Your task to perform on an android device: delete the emails in spam in the gmail app Image 0: 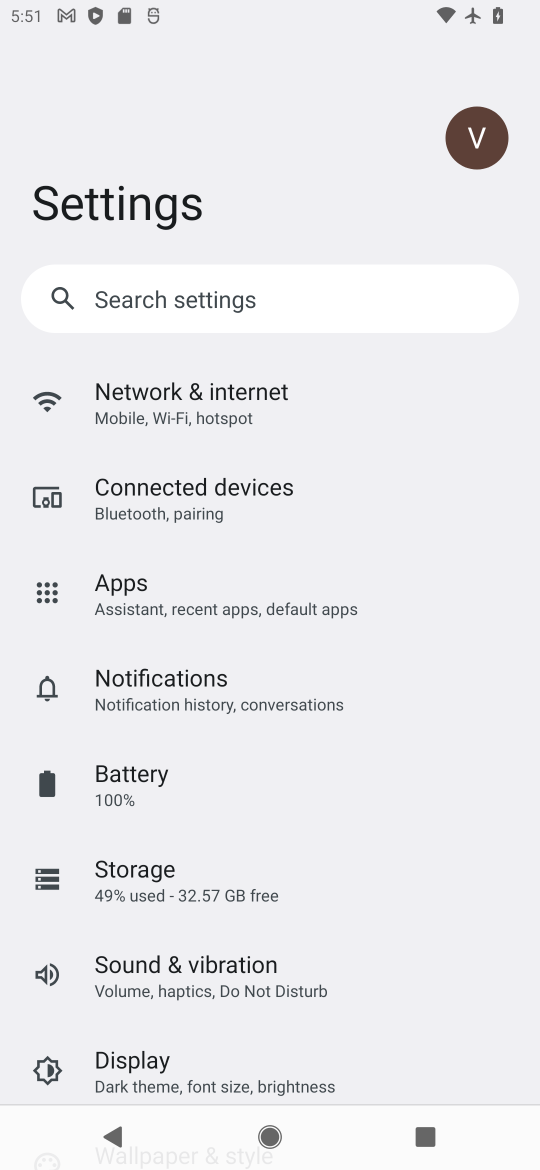
Step 0: press home button
Your task to perform on an android device: delete the emails in spam in the gmail app Image 1: 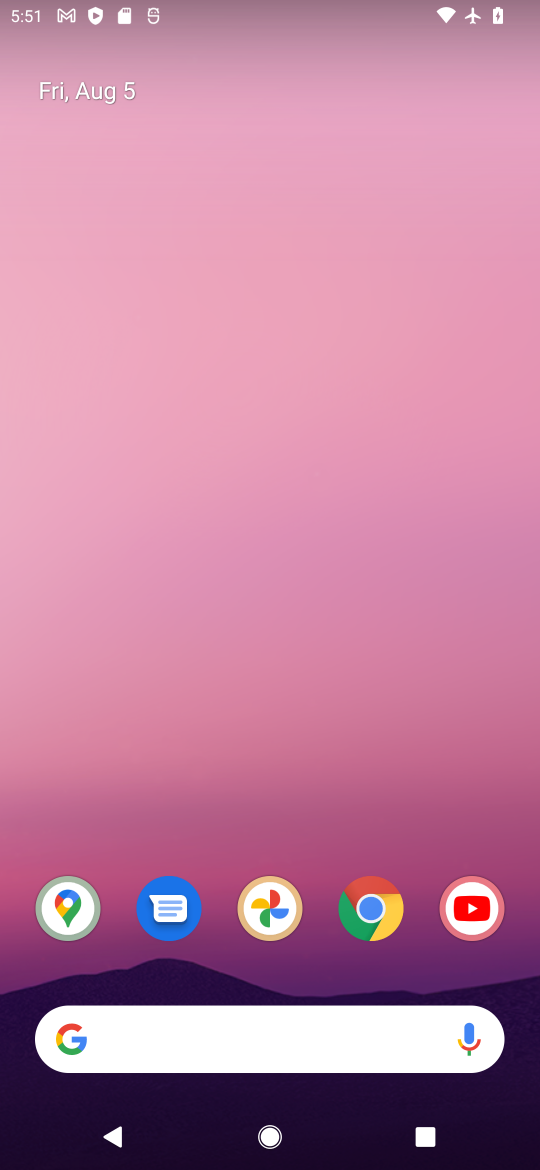
Step 1: drag from (199, 971) to (234, 293)
Your task to perform on an android device: delete the emails in spam in the gmail app Image 2: 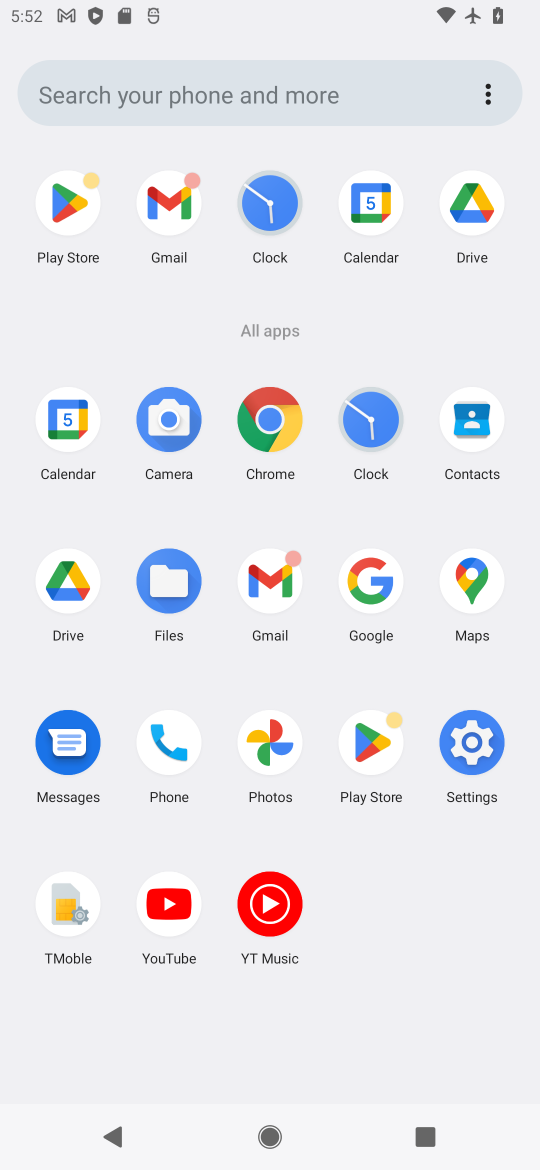
Step 2: click (169, 234)
Your task to perform on an android device: delete the emails in spam in the gmail app Image 3: 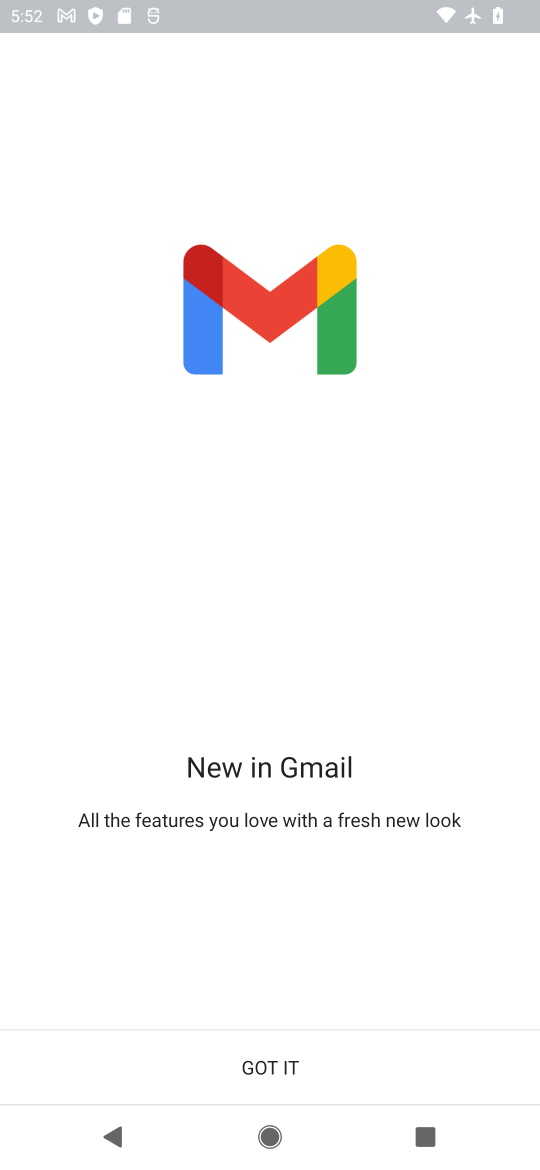
Step 3: click (255, 1060)
Your task to perform on an android device: delete the emails in spam in the gmail app Image 4: 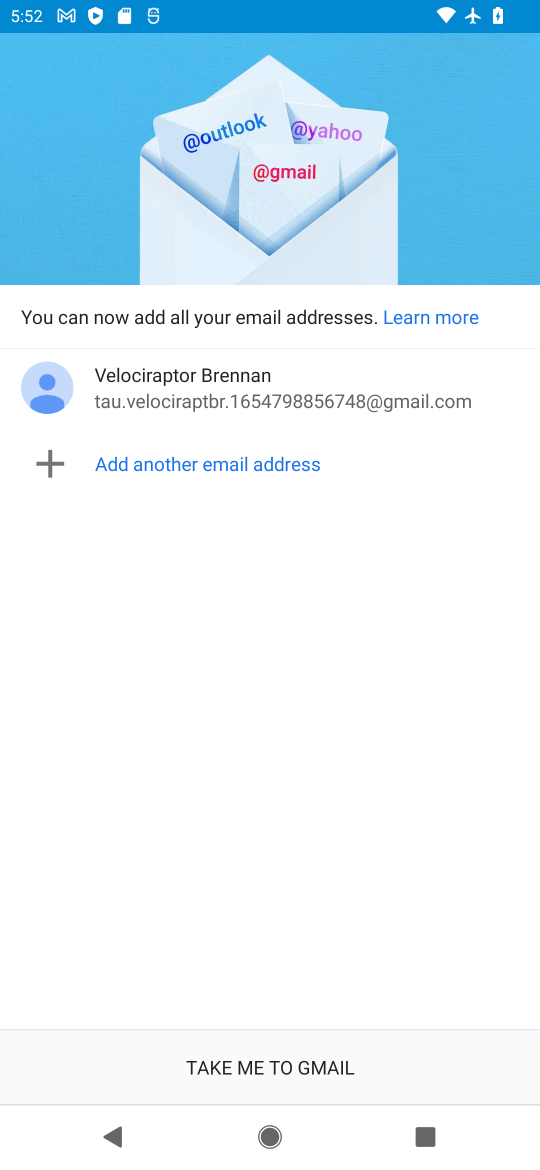
Step 4: click (255, 1060)
Your task to perform on an android device: delete the emails in spam in the gmail app Image 5: 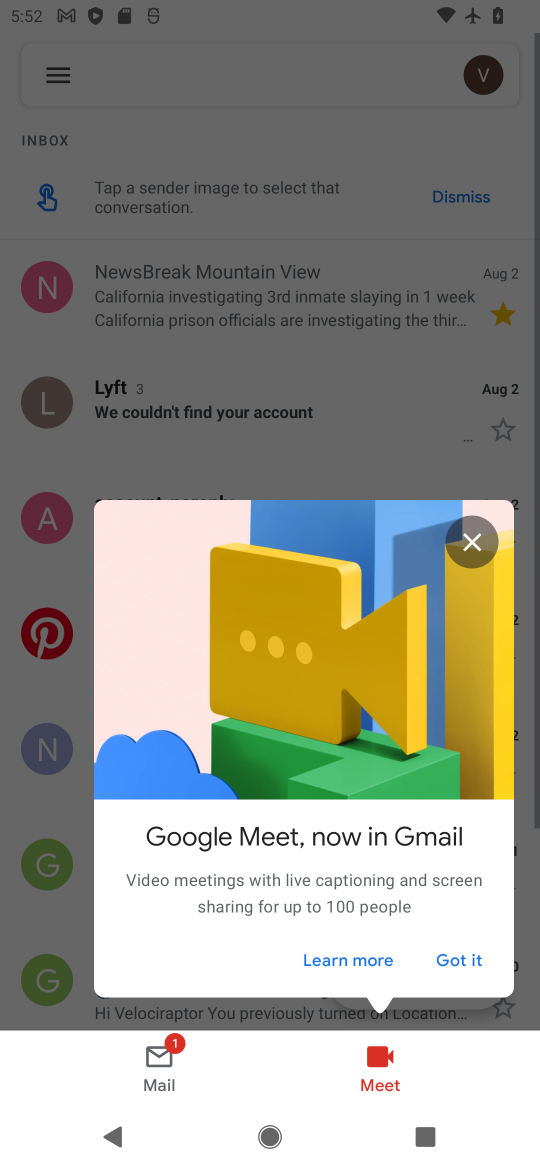
Step 5: click (468, 529)
Your task to perform on an android device: delete the emails in spam in the gmail app Image 6: 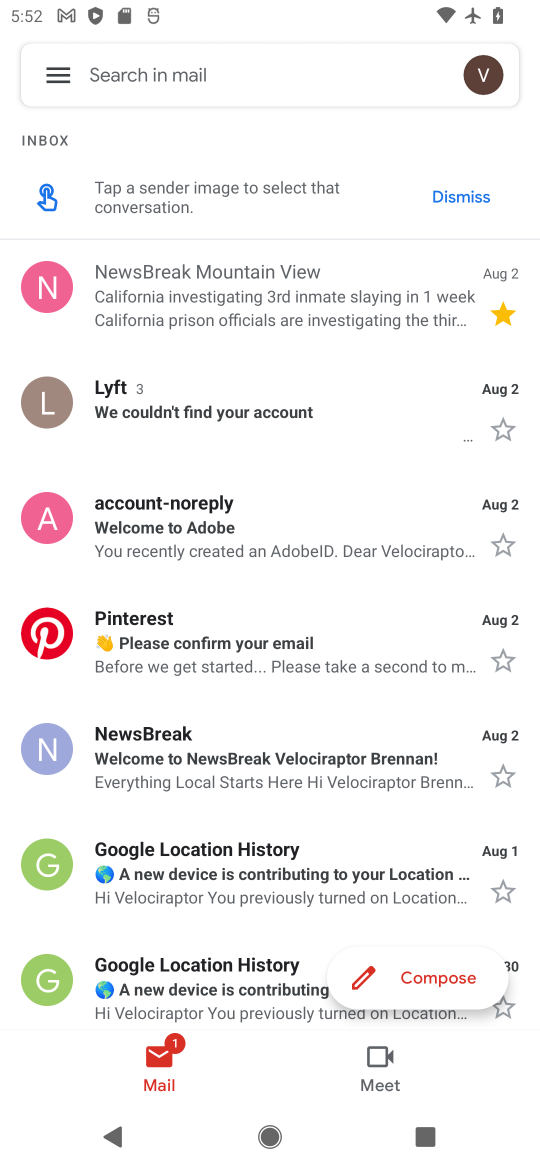
Step 6: click (54, 84)
Your task to perform on an android device: delete the emails in spam in the gmail app Image 7: 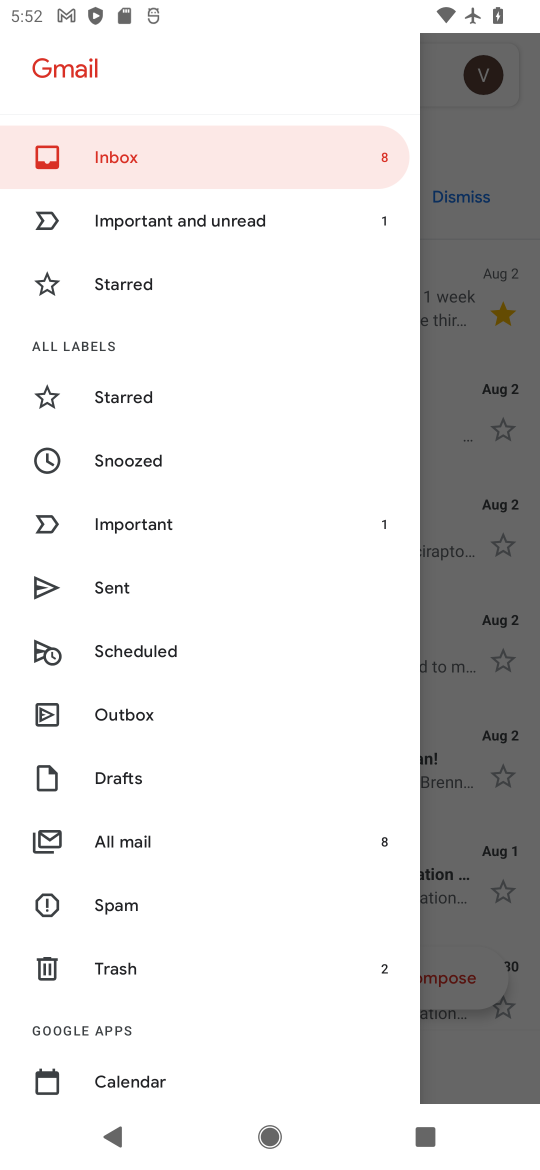
Step 7: click (130, 909)
Your task to perform on an android device: delete the emails in spam in the gmail app Image 8: 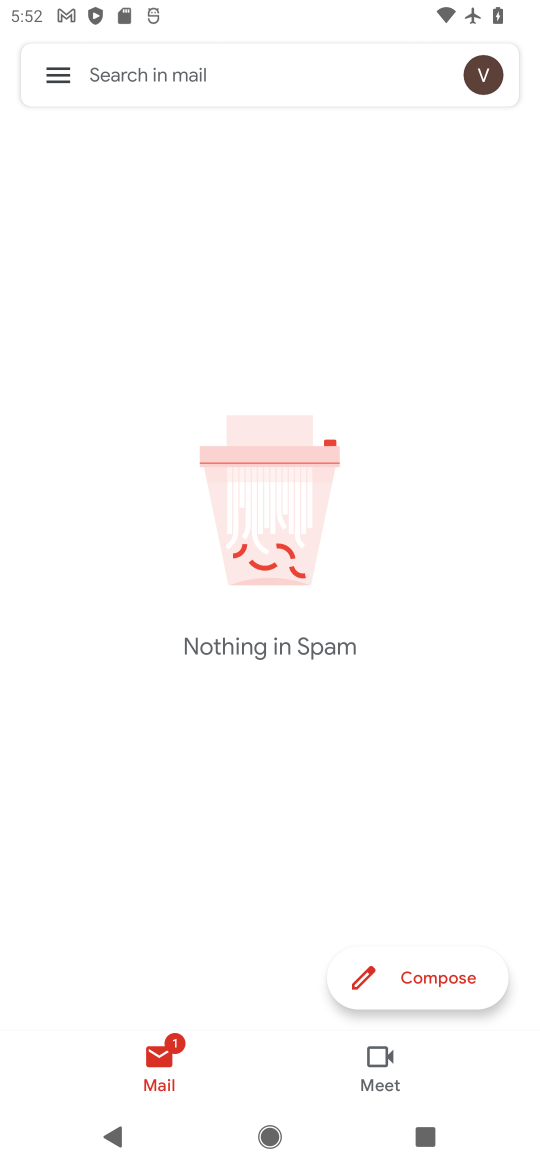
Step 8: task complete